Your task to perform on an android device: install app "Airtel Thanks" Image 0: 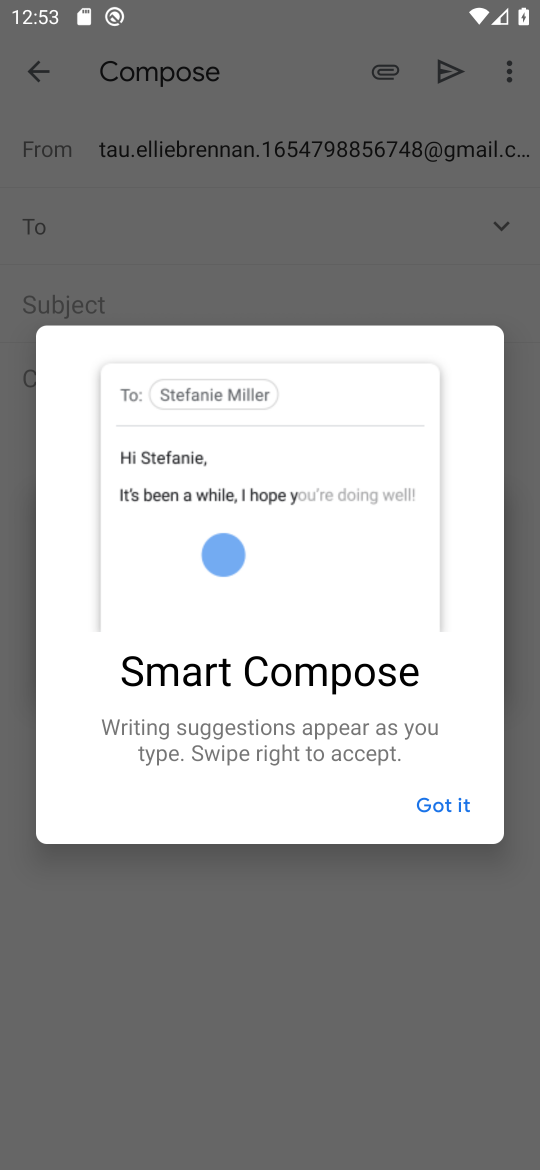
Step 0: press home button
Your task to perform on an android device: install app "Airtel Thanks" Image 1: 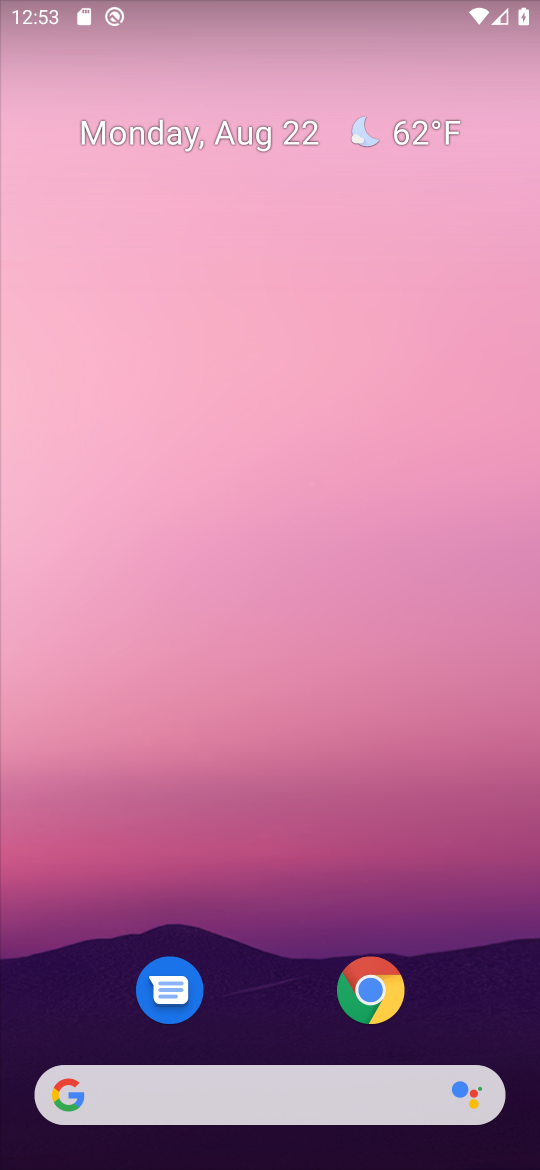
Step 1: drag from (245, 950) to (251, 376)
Your task to perform on an android device: install app "Airtel Thanks" Image 2: 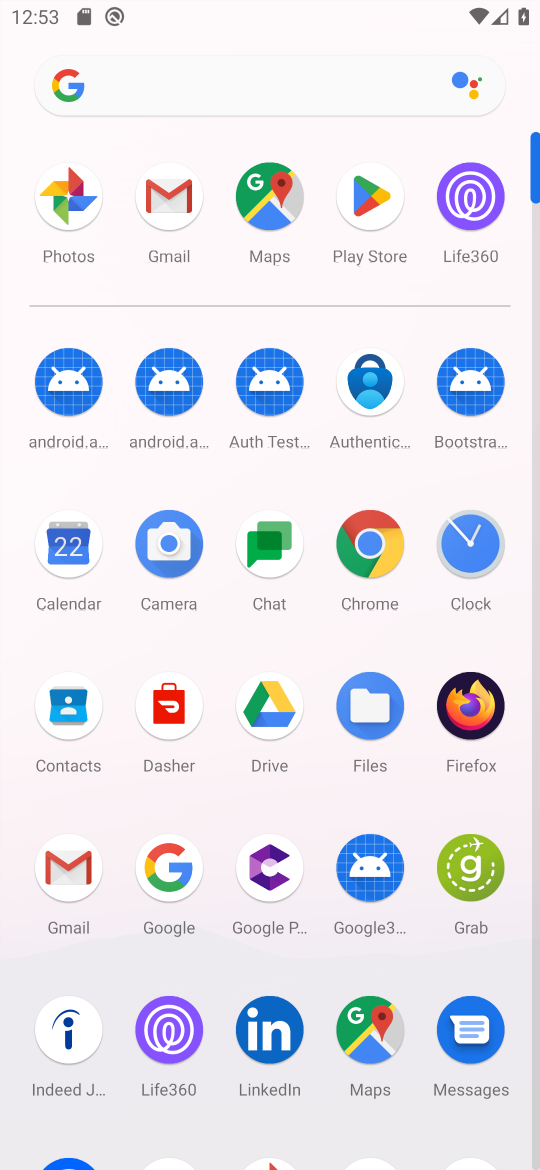
Step 2: click (352, 220)
Your task to perform on an android device: install app "Airtel Thanks" Image 3: 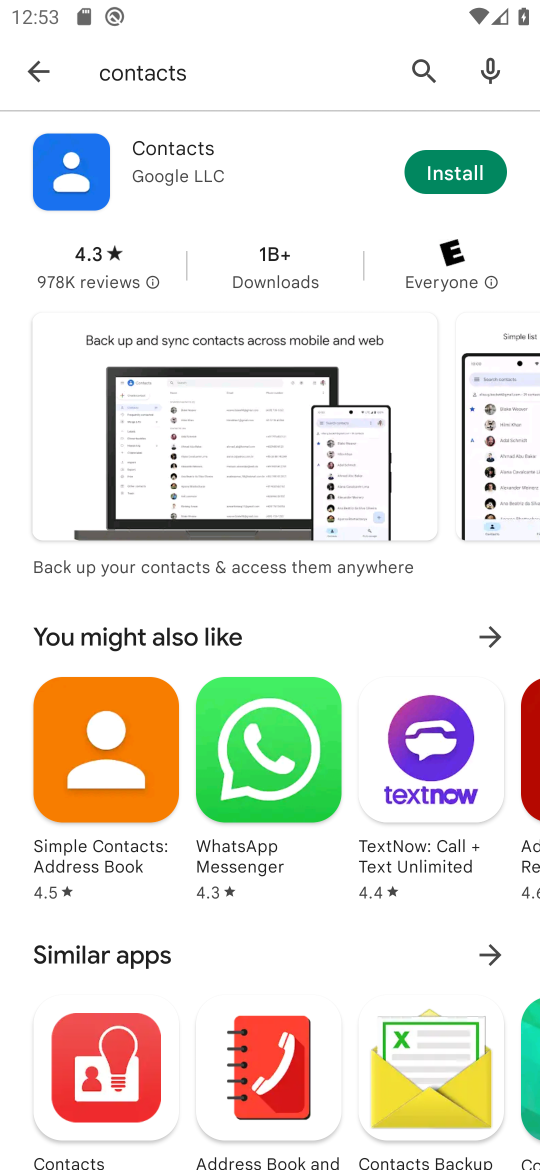
Step 3: click (418, 66)
Your task to perform on an android device: install app "Airtel Thanks" Image 4: 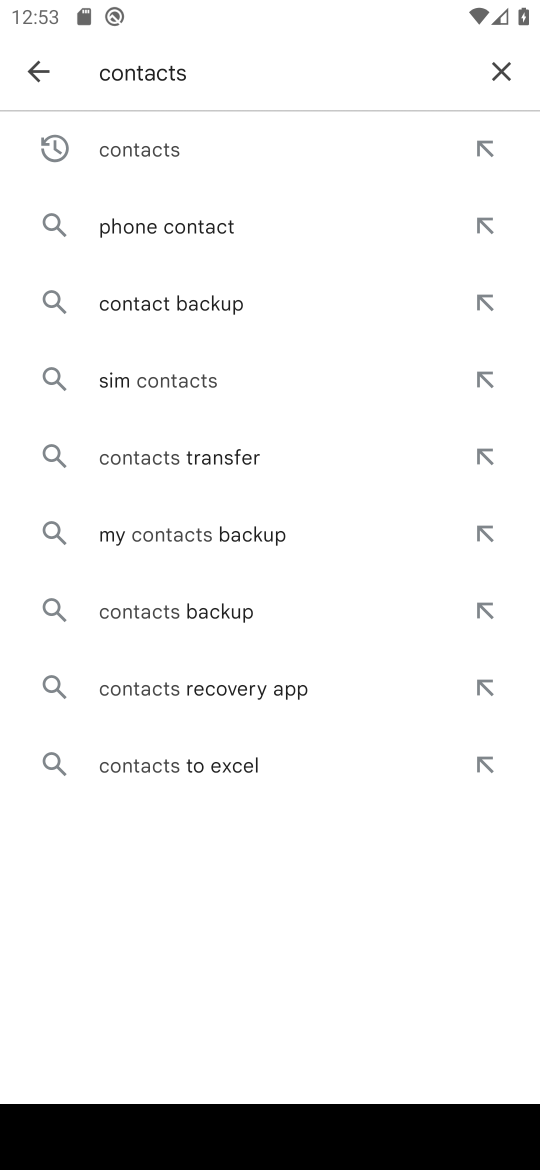
Step 4: click (497, 74)
Your task to perform on an android device: install app "Airtel Thanks" Image 5: 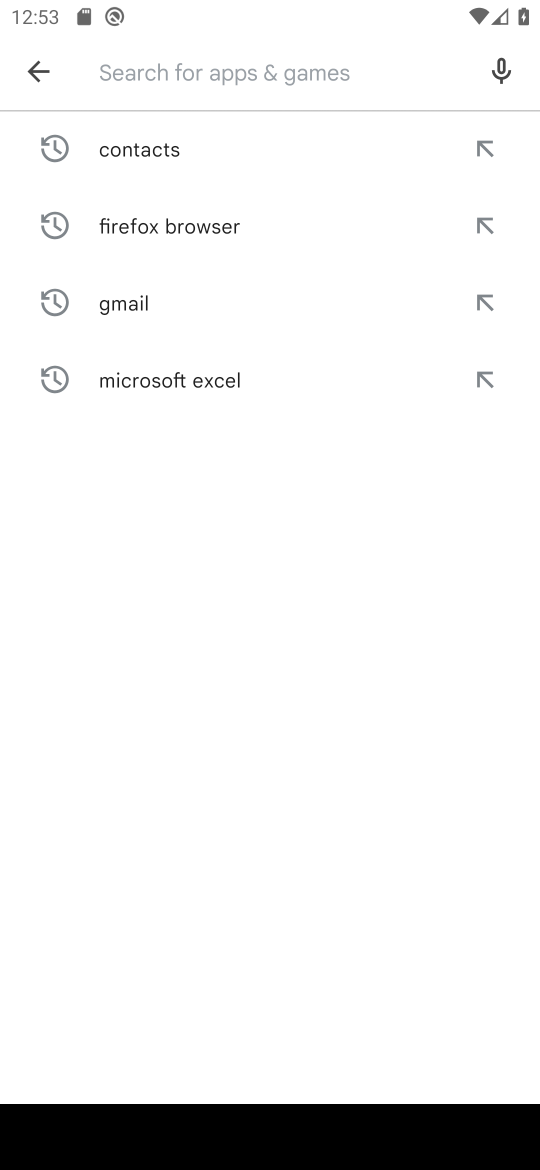
Step 5: type "Airtel Thanks"
Your task to perform on an android device: install app "Airtel Thanks" Image 6: 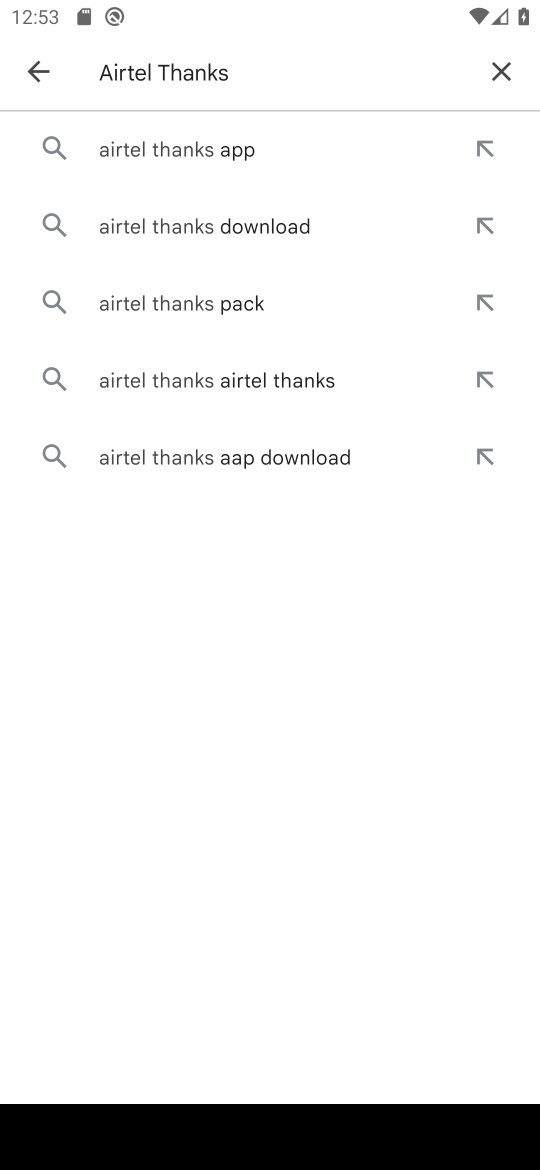
Step 6: click (244, 165)
Your task to perform on an android device: install app "Airtel Thanks" Image 7: 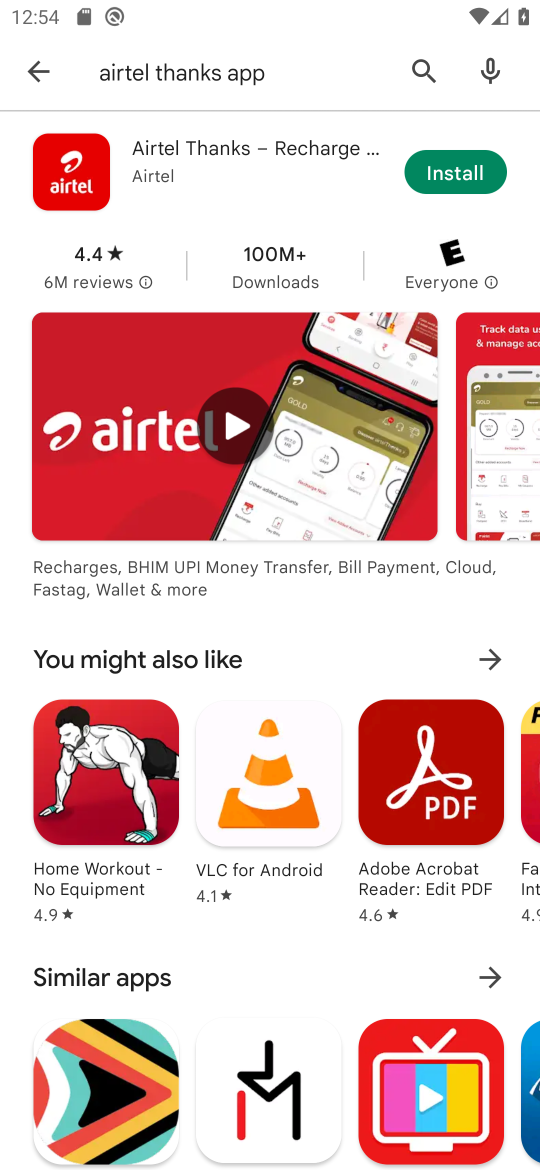
Step 7: click (477, 162)
Your task to perform on an android device: install app "Airtel Thanks" Image 8: 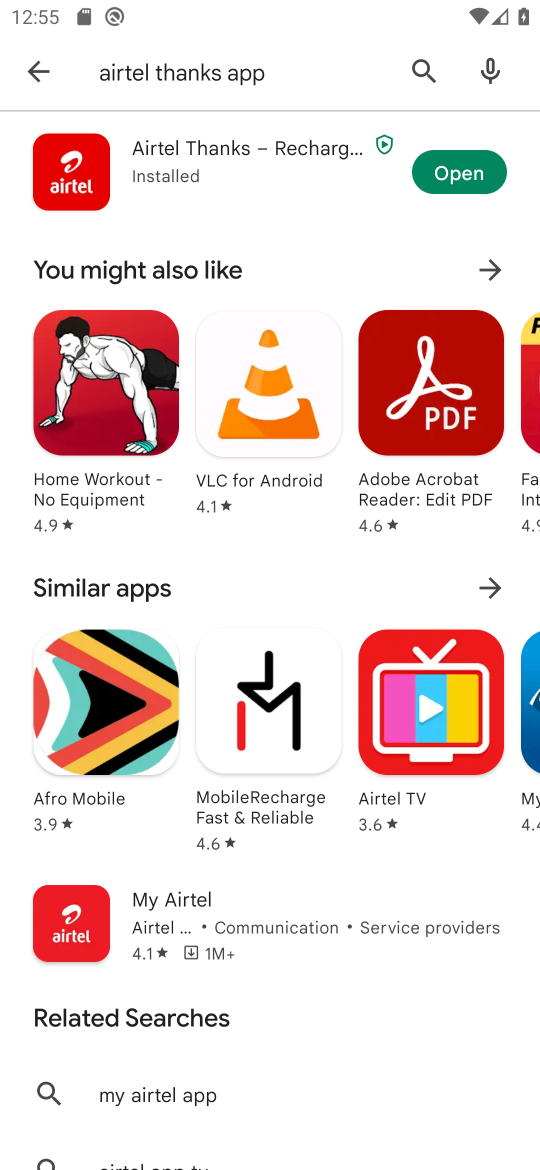
Step 8: task complete